Your task to perform on an android device: choose inbox layout in the gmail app Image 0: 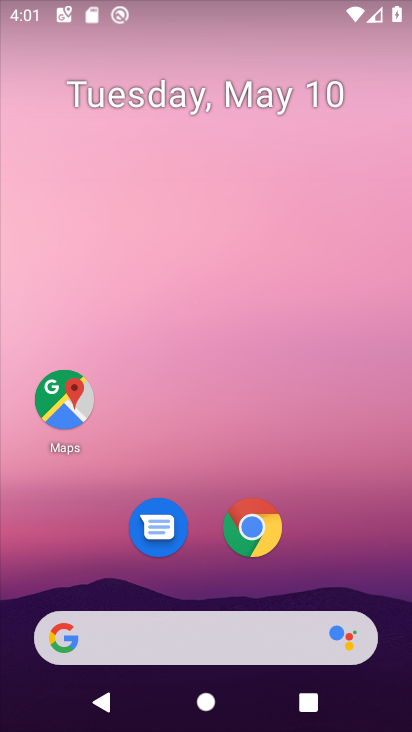
Step 0: drag from (392, 585) to (405, 222)
Your task to perform on an android device: choose inbox layout in the gmail app Image 1: 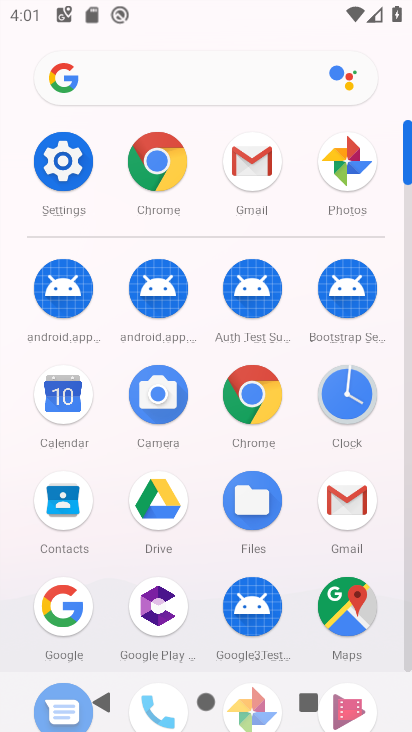
Step 1: click (350, 506)
Your task to perform on an android device: choose inbox layout in the gmail app Image 2: 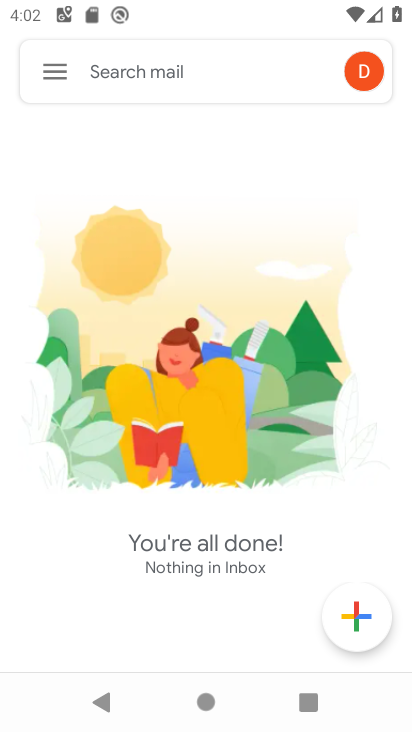
Step 2: click (55, 64)
Your task to perform on an android device: choose inbox layout in the gmail app Image 3: 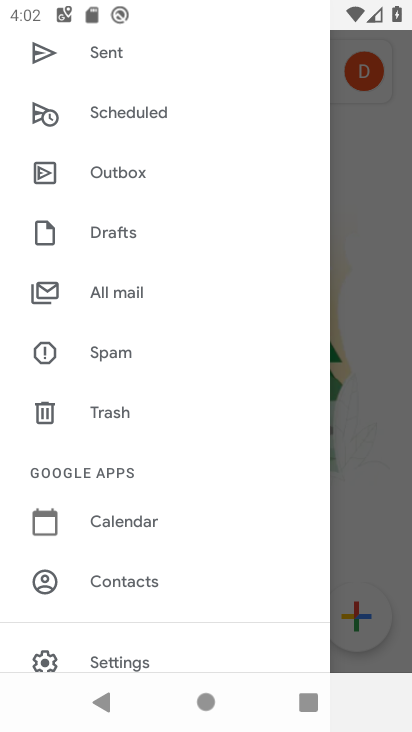
Step 3: click (116, 655)
Your task to perform on an android device: choose inbox layout in the gmail app Image 4: 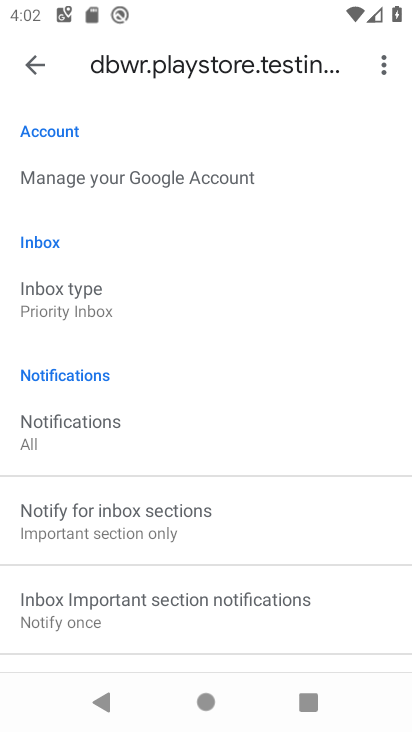
Step 4: click (57, 296)
Your task to perform on an android device: choose inbox layout in the gmail app Image 5: 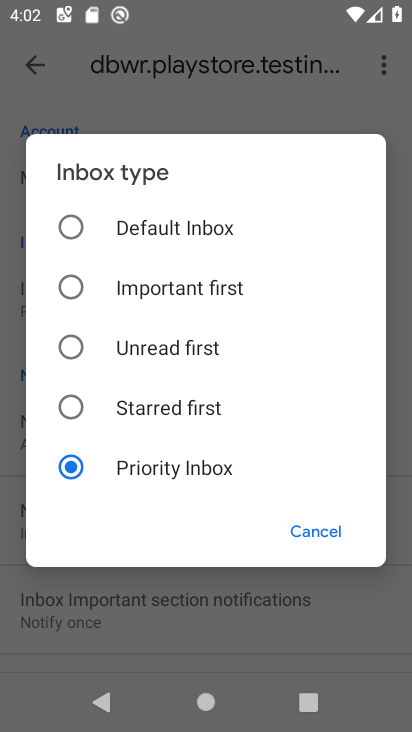
Step 5: click (59, 403)
Your task to perform on an android device: choose inbox layout in the gmail app Image 6: 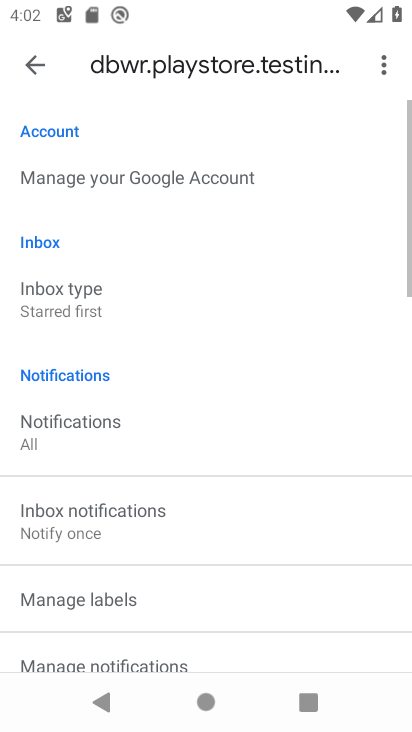
Step 6: task complete